Your task to perform on an android device: Go to Amazon Image 0: 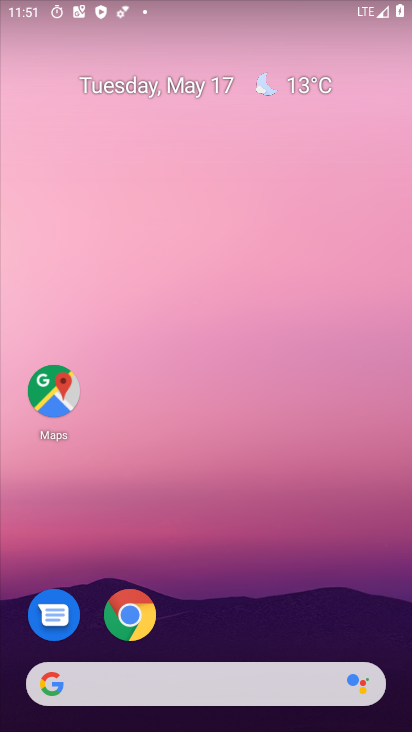
Step 0: press home button
Your task to perform on an android device: Go to Amazon Image 1: 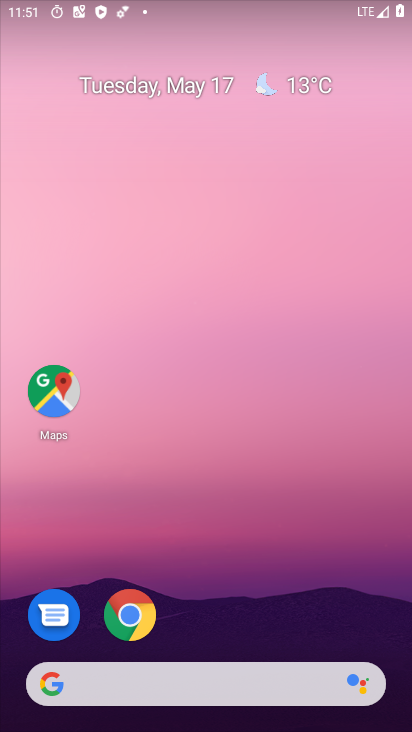
Step 1: drag from (157, 683) to (280, 129)
Your task to perform on an android device: Go to Amazon Image 2: 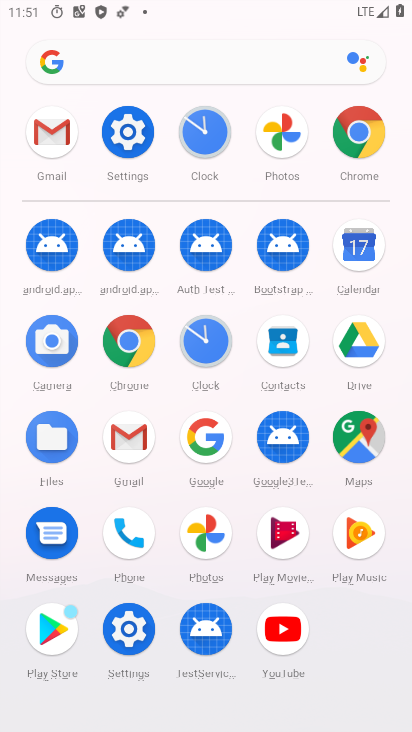
Step 2: click (350, 145)
Your task to perform on an android device: Go to Amazon Image 3: 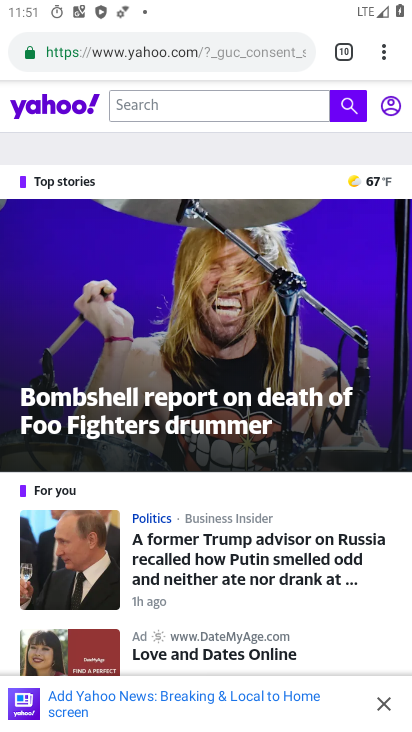
Step 3: drag from (386, 55) to (303, 102)
Your task to perform on an android device: Go to Amazon Image 4: 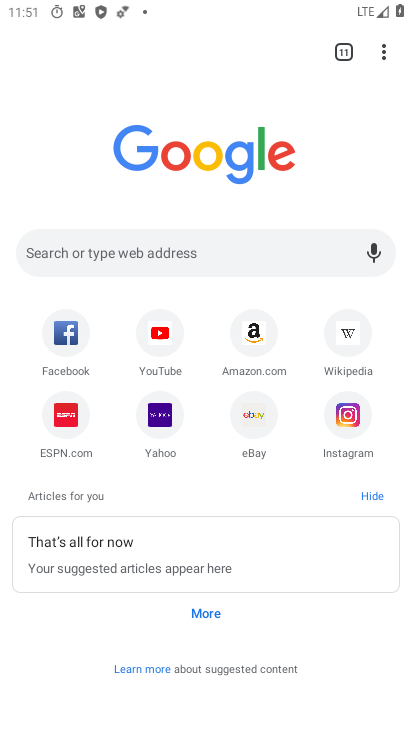
Step 4: click (252, 331)
Your task to perform on an android device: Go to Amazon Image 5: 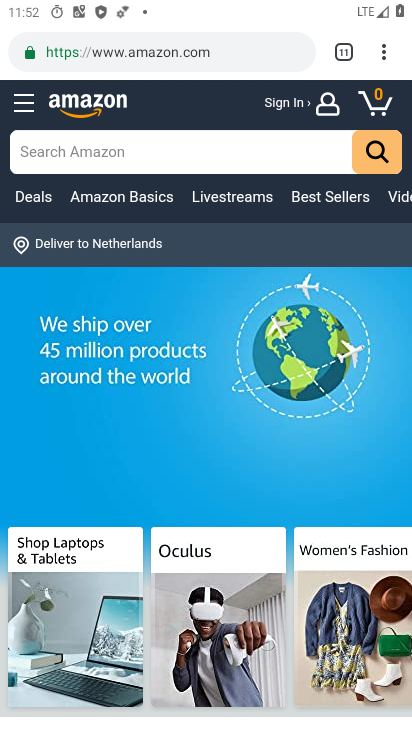
Step 5: task complete